Your task to perform on an android device: Search for Italian restaurants on Maps Image 0: 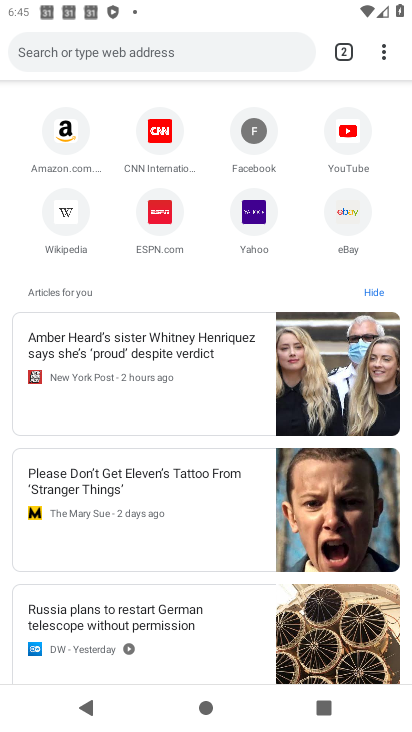
Step 0: press home button
Your task to perform on an android device: Search for Italian restaurants on Maps Image 1: 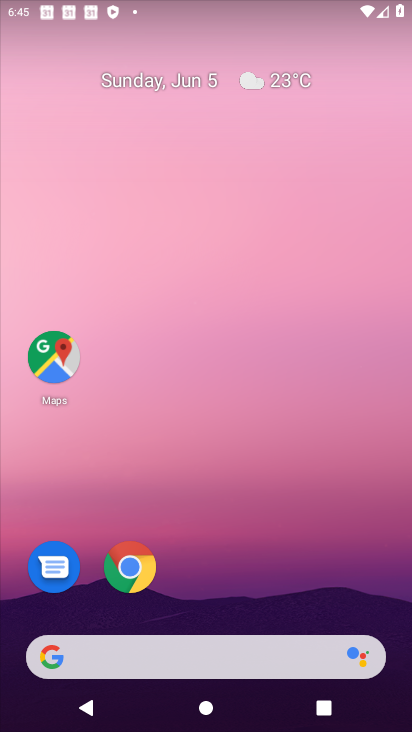
Step 1: drag from (377, 592) to (267, 23)
Your task to perform on an android device: Search for Italian restaurants on Maps Image 2: 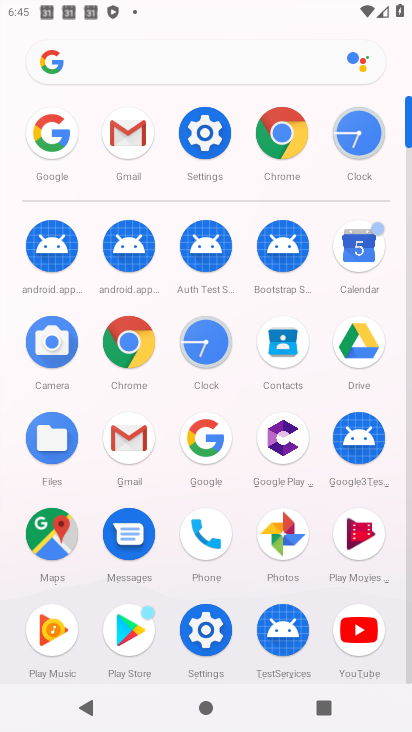
Step 2: click (90, 533)
Your task to perform on an android device: Search for Italian restaurants on Maps Image 3: 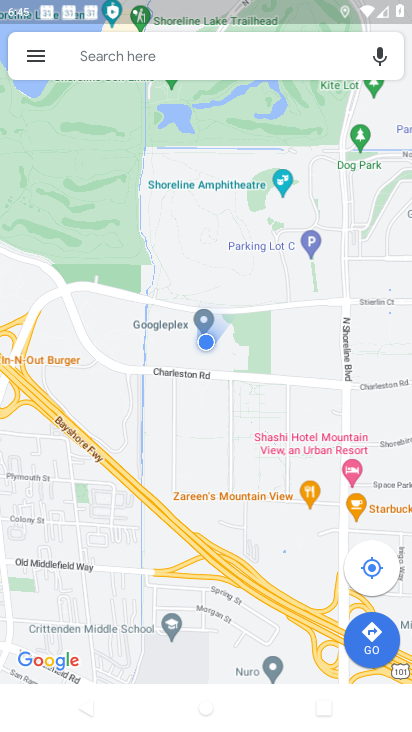
Step 3: click (143, 63)
Your task to perform on an android device: Search for Italian restaurants on Maps Image 4: 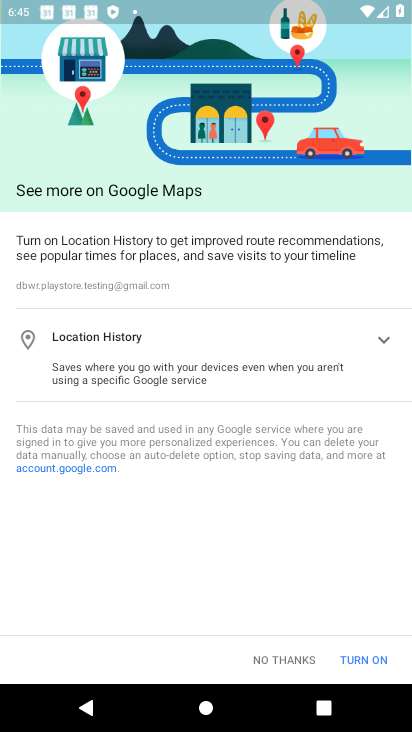
Step 4: click (271, 666)
Your task to perform on an android device: Search for Italian restaurants on Maps Image 5: 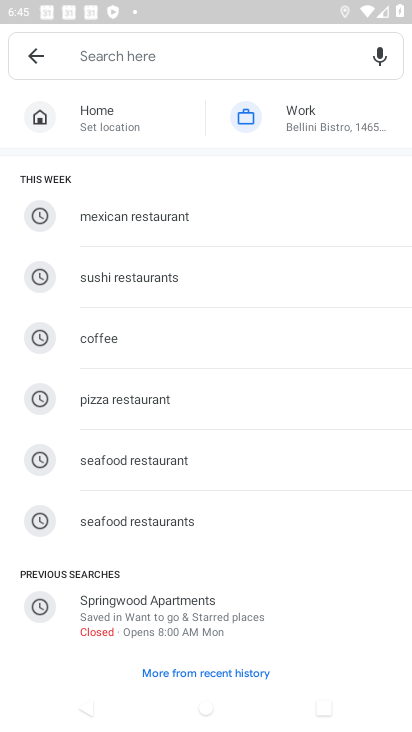
Step 5: click (154, 49)
Your task to perform on an android device: Search for Italian restaurants on Maps Image 6: 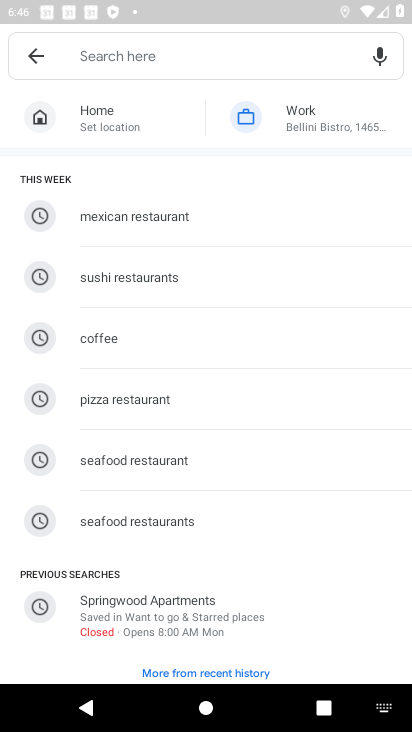
Step 6: type "Italian restaurnts"
Your task to perform on an android device: Search for Italian restaurants on Maps Image 7: 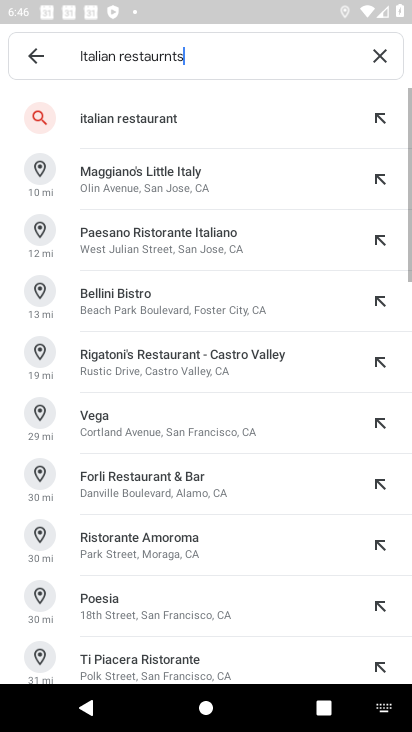
Step 7: click (149, 130)
Your task to perform on an android device: Search for Italian restaurants on Maps Image 8: 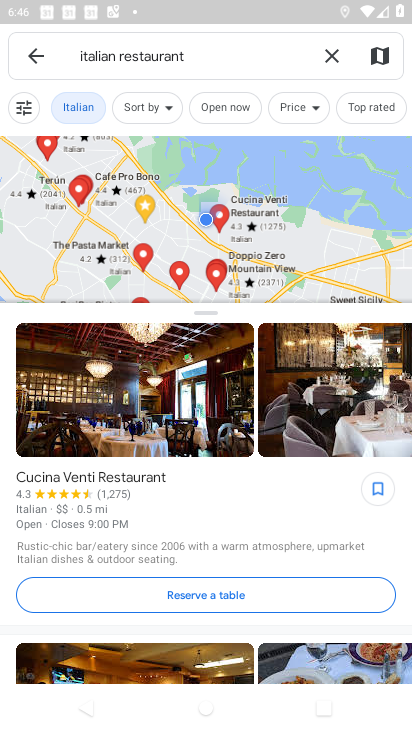
Step 8: task complete